Your task to perform on an android device: Open calendar and show me the first week of next month Image 0: 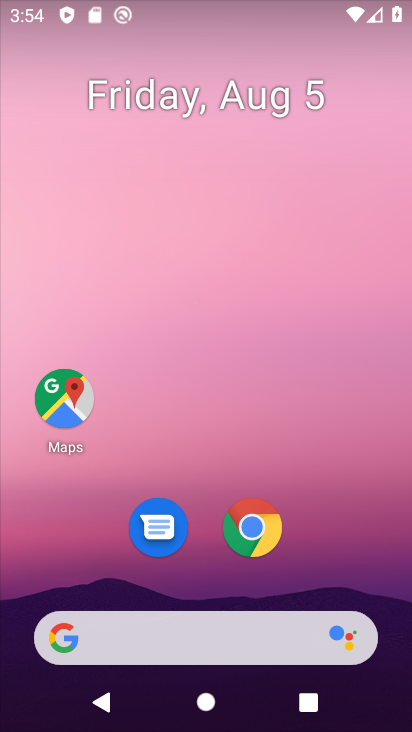
Step 0: press home button
Your task to perform on an android device: Open calendar and show me the first week of next month Image 1: 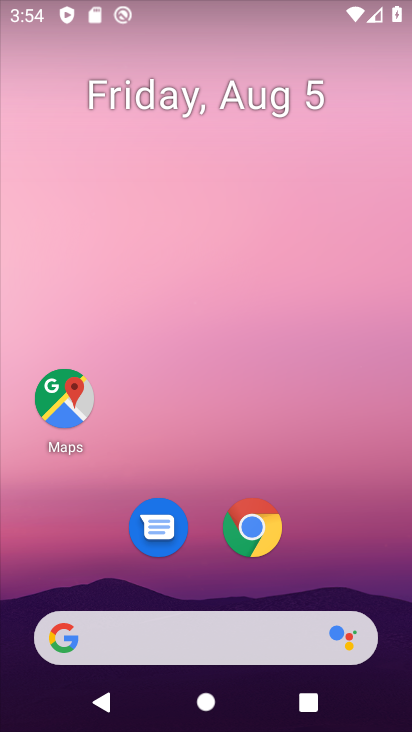
Step 1: drag from (208, 574) to (229, 61)
Your task to perform on an android device: Open calendar and show me the first week of next month Image 2: 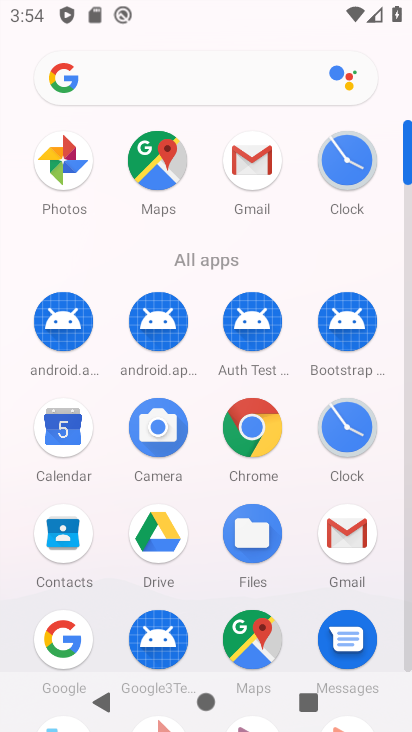
Step 2: click (65, 426)
Your task to perform on an android device: Open calendar and show me the first week of next month Image 3: 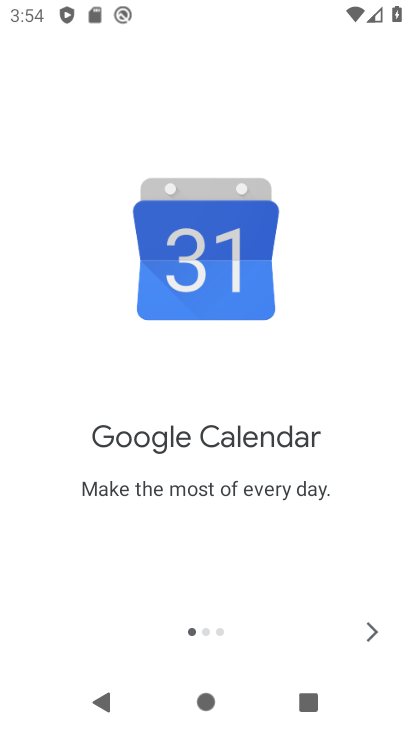
Step 3: click (368, 626)
Your task to perform on an android device: Open calendar and show me the first week of next month Image 4: 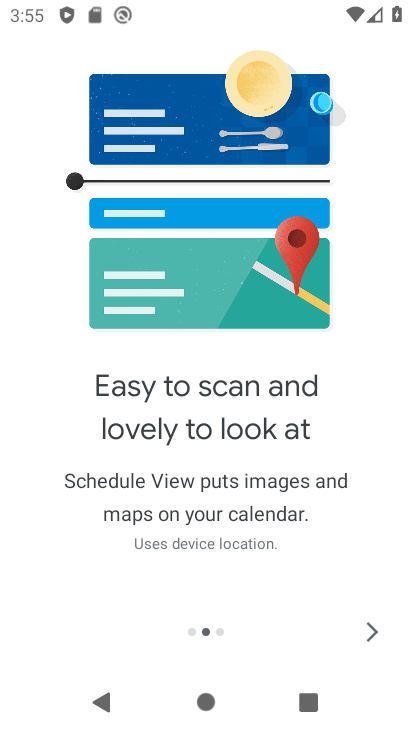
Step 4: click (380, 623)
Your task to perform on an android device: Open calendar and show me the first week of next month Image 5: 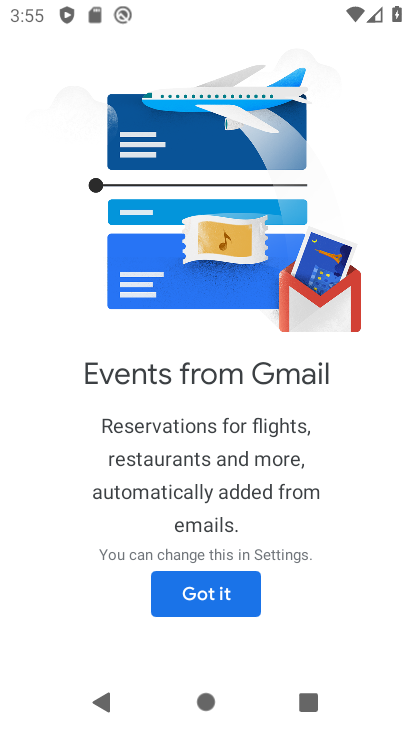
Step 5: click (370, 630)
Your task to perform on an android device: Open calendar and show me the first week of next month Image 6: 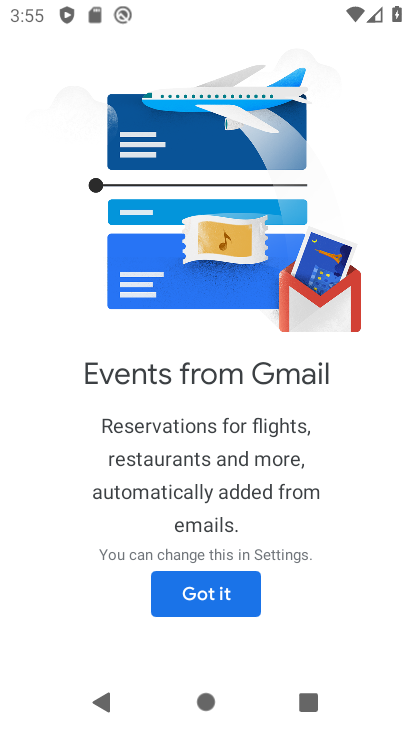
Step 6: click (199, 596)
Your task to perform on an android device: Open calendar and show me the first week of next month Image 7: 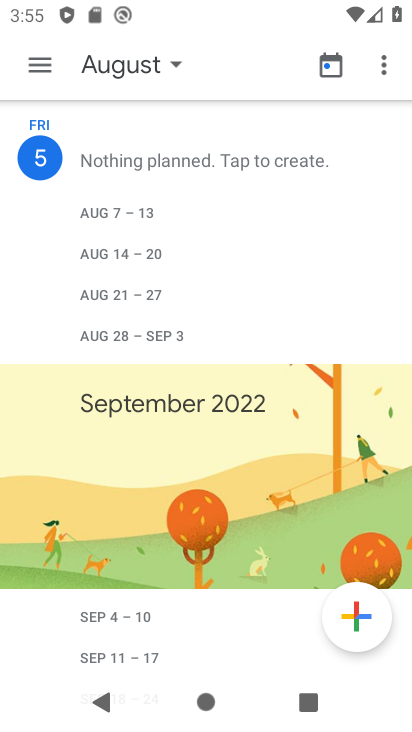
Step 7: click (40, 64)
Your task to perform on an android device: Open calendar and show me the first week of next month Image 8: 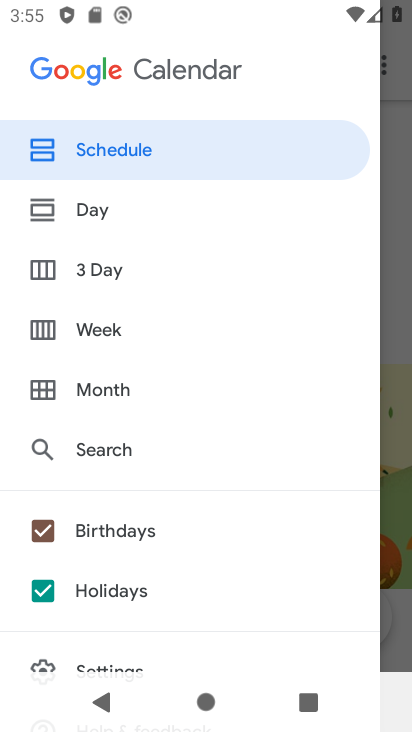
Step 8: click (78, 332)
Your task to perform on an android device: Open calendar and show me the first week of next month Image 9: 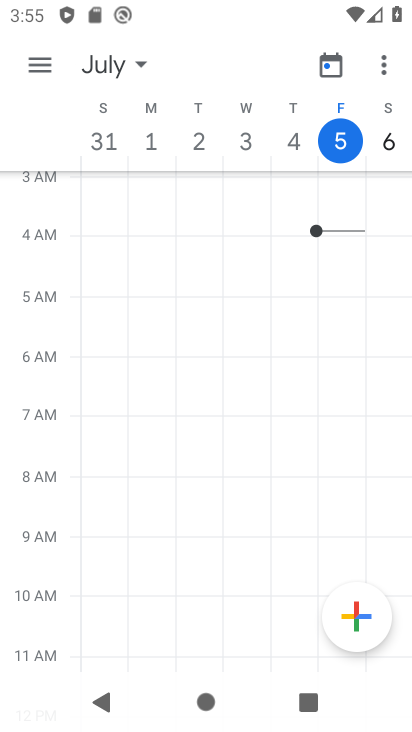
Step 9: click (139, 66)
Your task to perform on an android device: Open calendar and show me the first week of next month Image 10: 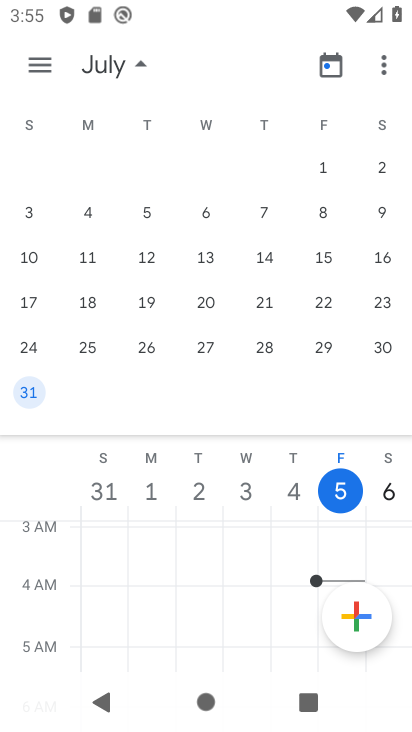
Step 10: drag from (350, 282) to (7, 310)
Your task to perform on an android device: Open calendar and show me the first week of next month Image 11: 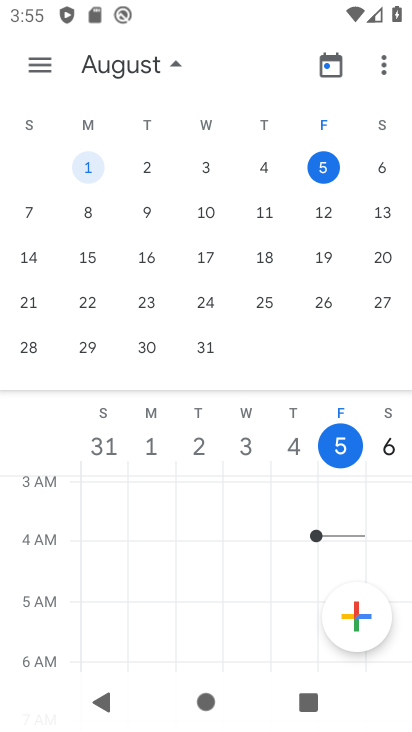
Step 11: drag from (360, 252) to (0, 259)
Your task to perform on an android device: Open calendar and show me the first week of next month Image 12: 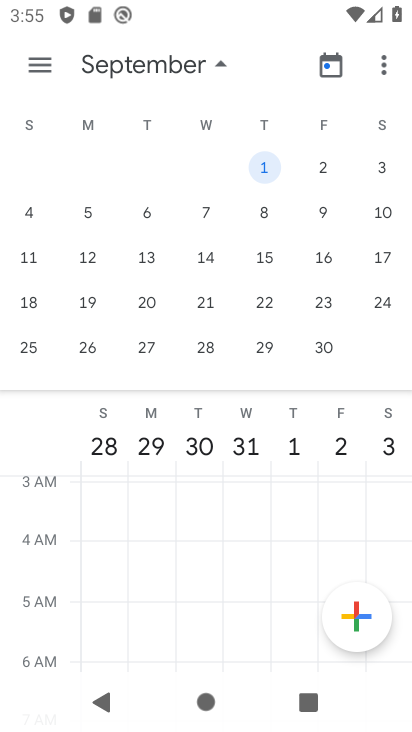
Step 12: click (31, 221)
Your task to perform on an android device: Open calendar and show me the first week of next month Image 13: 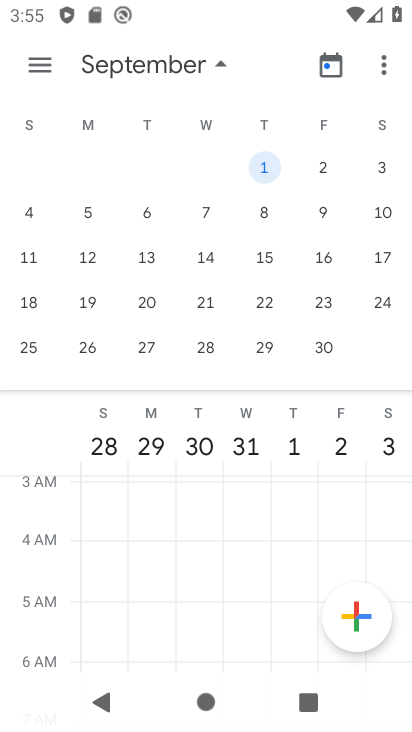
Step 13: click (28, 210)
Your task to perform on an android device: Open calendar and show me the first week of next month Image 14: 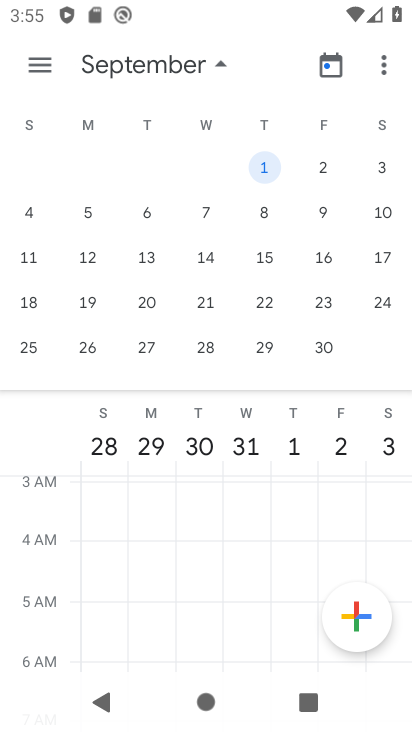
Step 14: click (22, 209)
Your task to perform on an android device: Open calendar and show me the first week of next month Image 15: 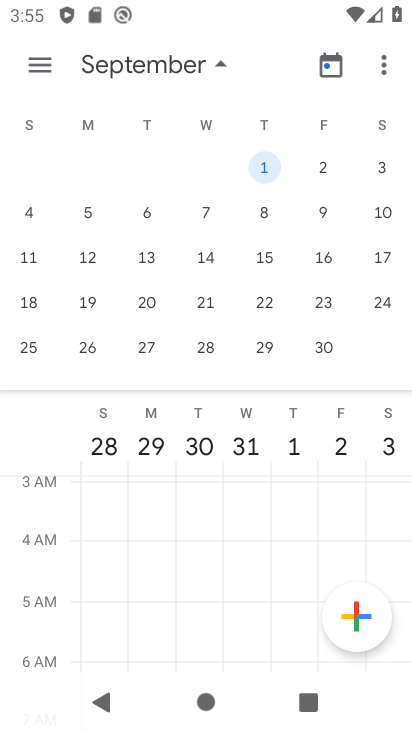
Step 15: click (34, 214)
Your task to perform on an android device: Open calendar and show me the first week of next month Image 16: 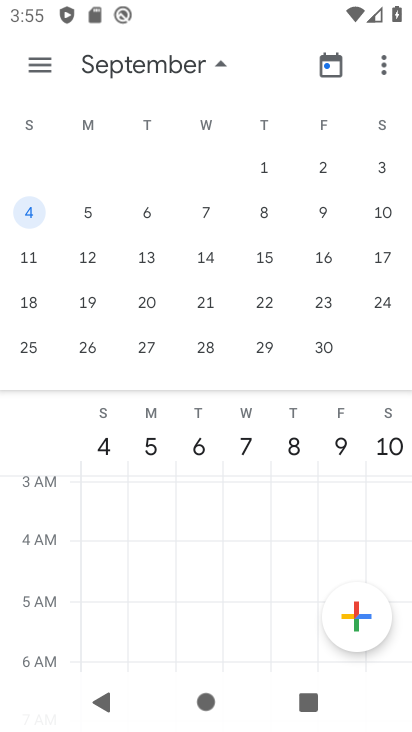
Step 16: click (213, 63)
Your task to perform on an android device: Open calendar and show me the first week of next month Image 17: 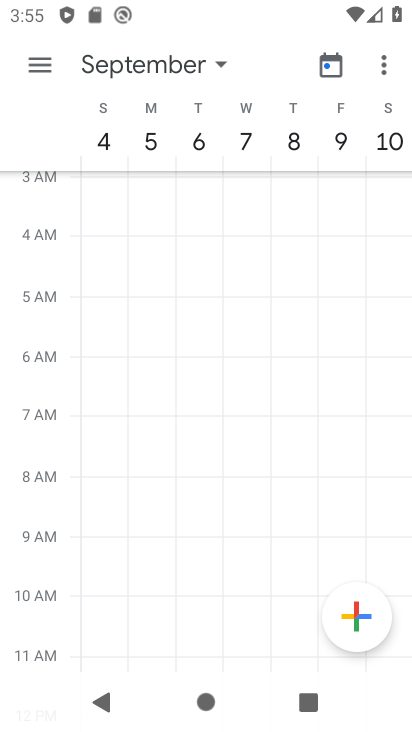
Step 17: task complete